Your task to perform on an android device: turn off wifi Image 0: 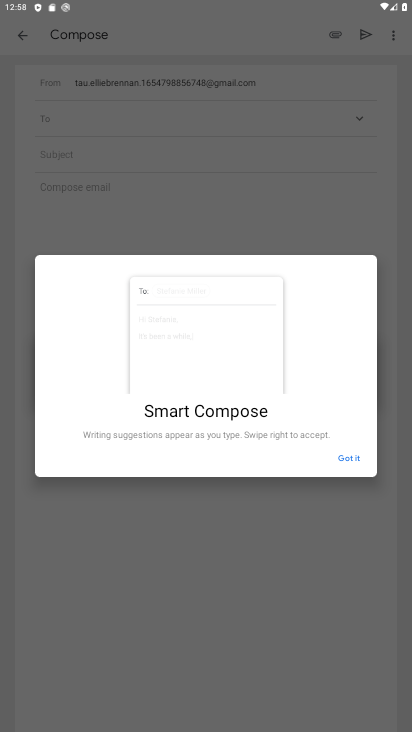
Step 0: press home button
Your task to perform on an android device: turn off wifi Image 1: 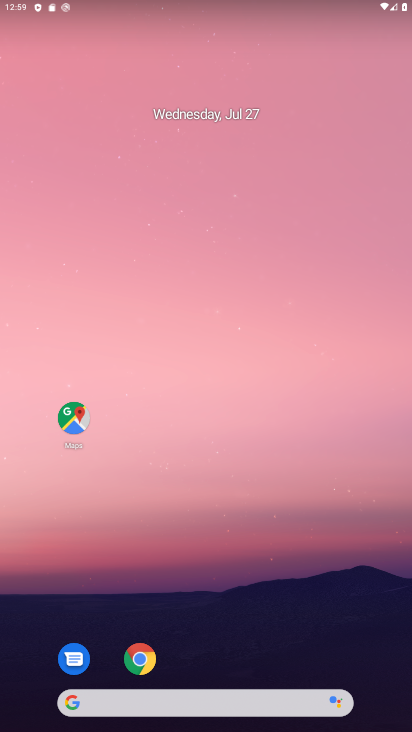
Step 1: drag from (212, 598) to (214, 221)
Your task to perform on an android device: turn off wifi Image 2: 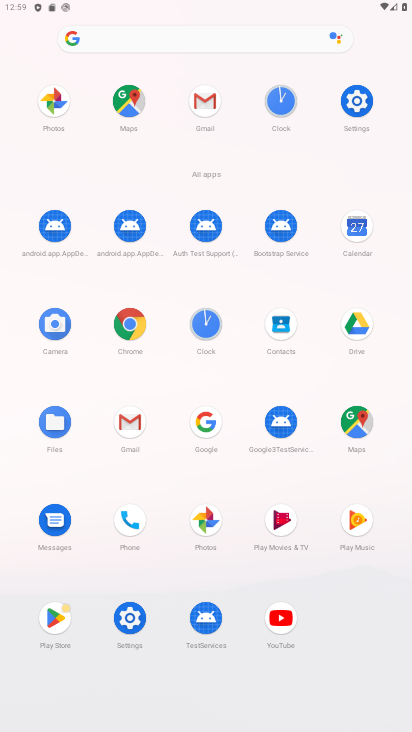
Step 2: click (359, 101)
Your task to perform on an android device: turn off wifi Image 3: 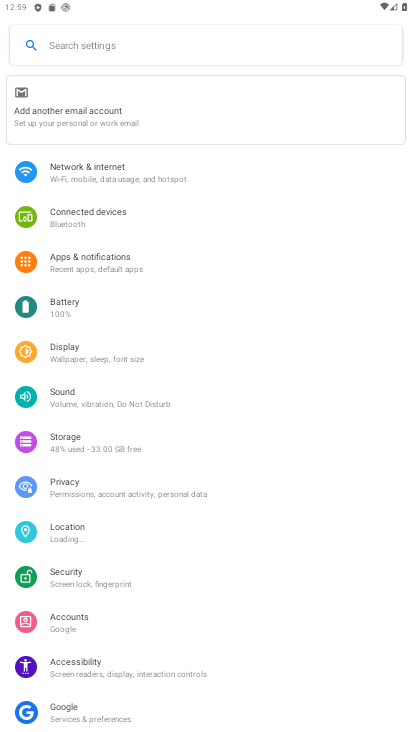
Step 3: click (76, 178)
Your task to perform on an android device: turn off wifi Image 4: 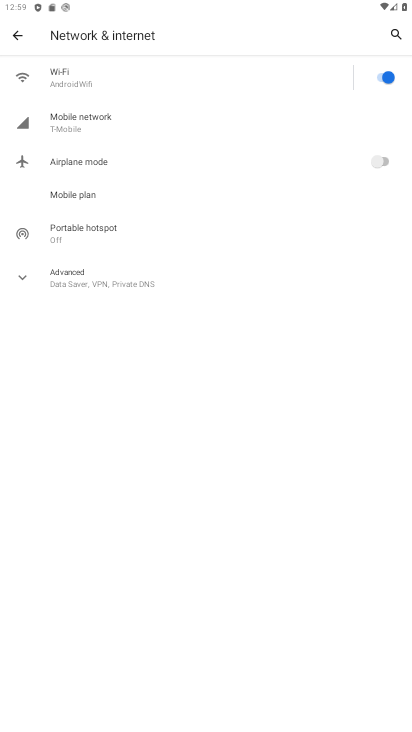
Step 4: click (386, 77)
Your task to perform on an android device: turn off wifi Image 5: 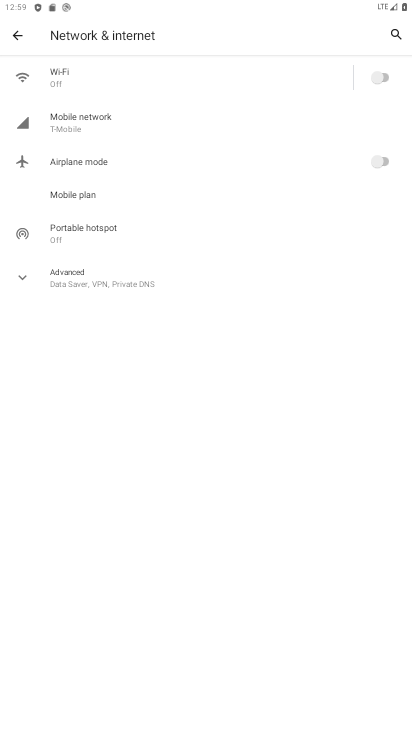
Step 5: task complete